Your task to perform on an android device: open app "VLC for Android" (install if not already installed) Image 0: 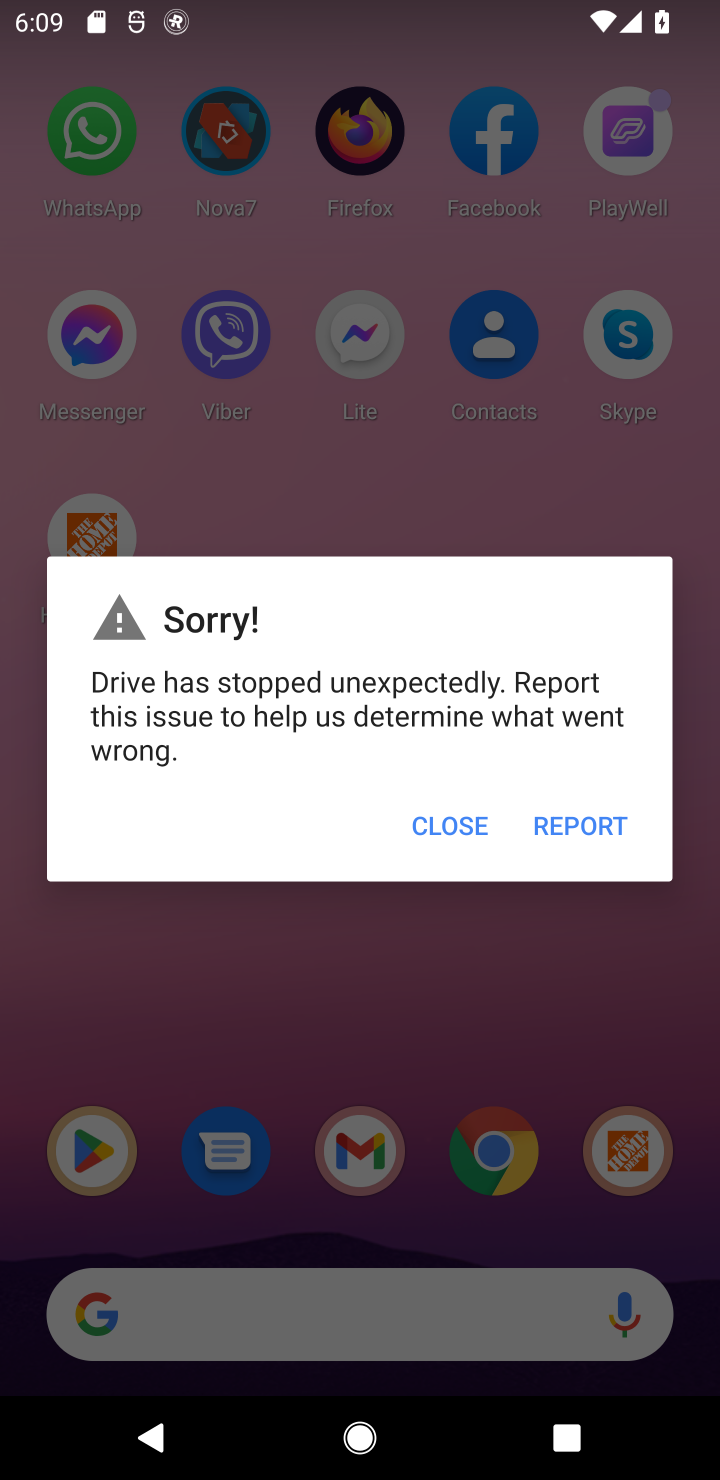
Step 0: press home button
Your task to perform on an android device: open app "VLC for Android" (install if not already installed) Image 1: 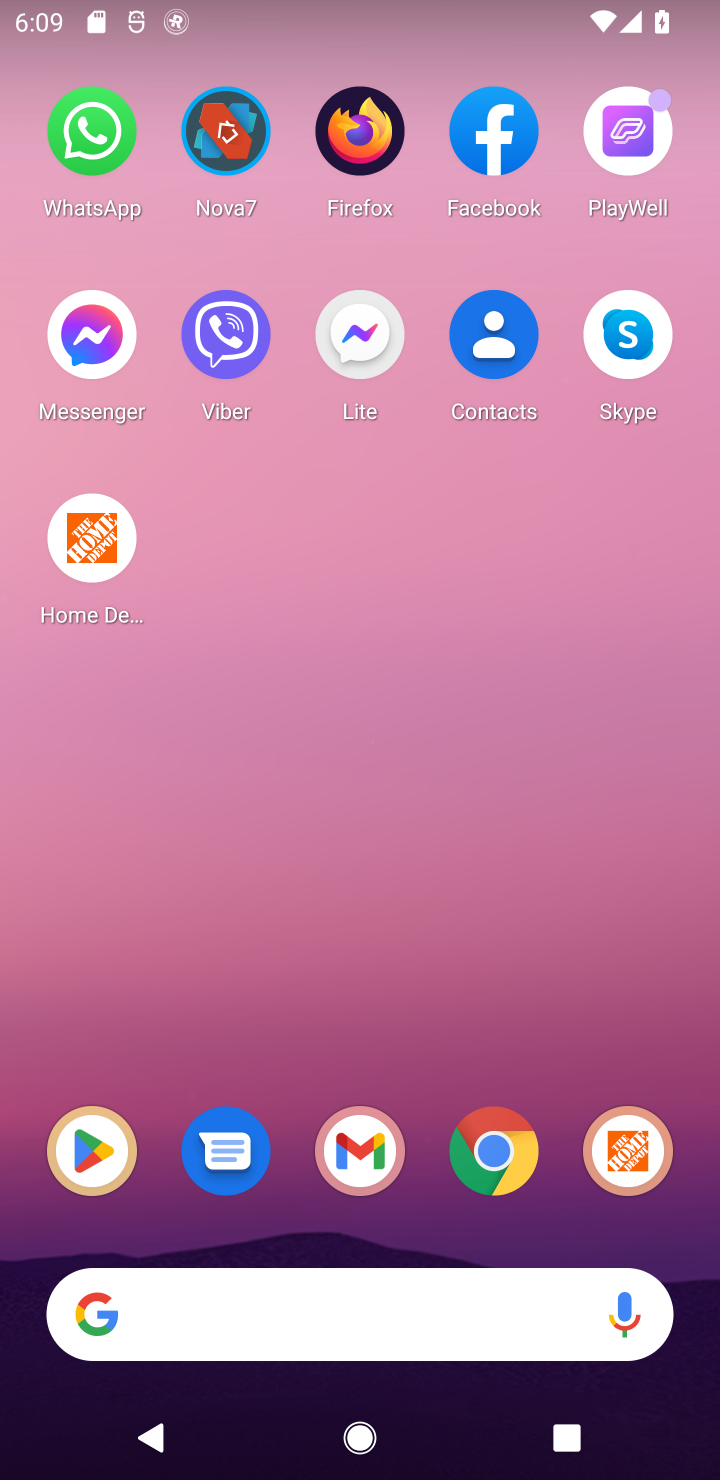
Step 1: click (121, 1152)
Your task to perform on an android device: open app "VLC for Android" (install if not already installed) Image 2: 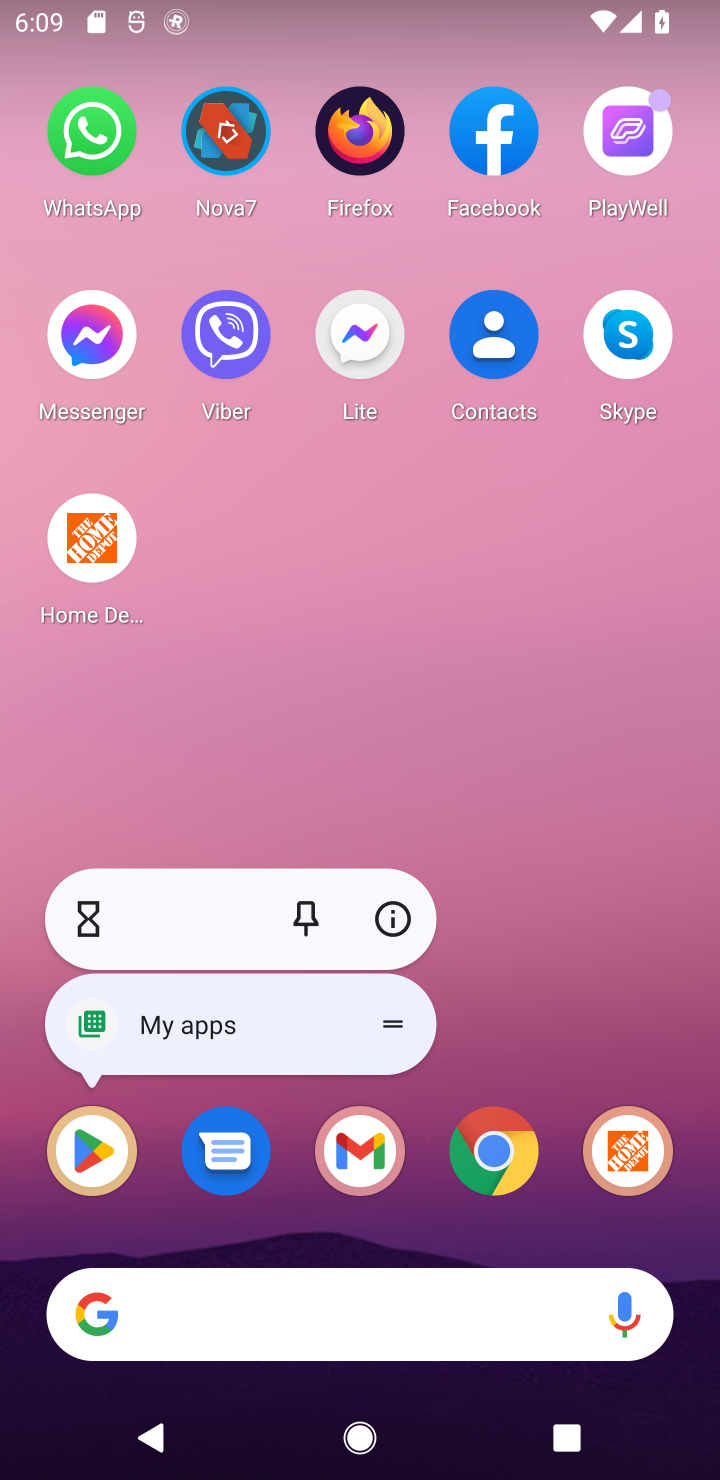
Step 2: click (86, 1167)
Your task to perform on an android device: open app "VLC for Android" (install if not already installed) Image 3: 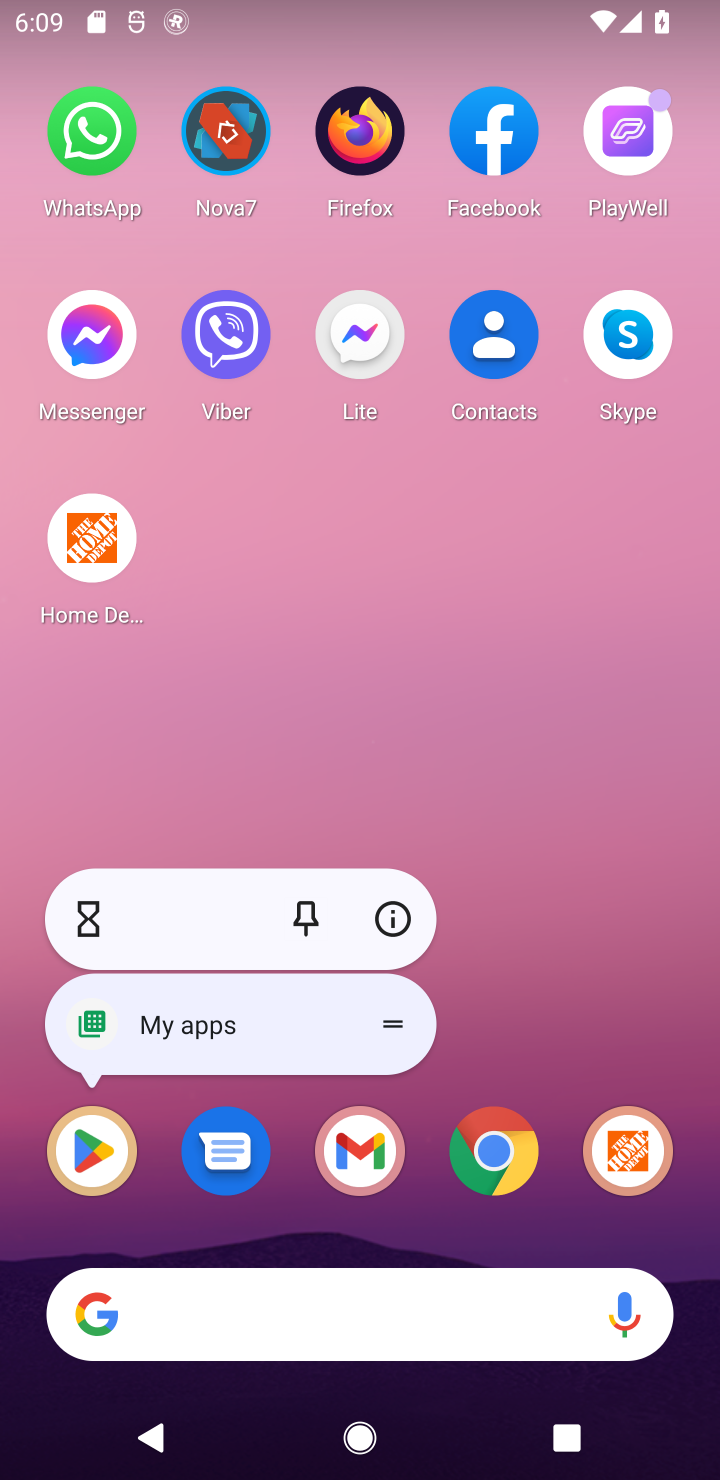
Step 3: click (86, 1167)
Your task to perform on an android device: open app "VLC for Android" (install if not already installed) Image 4: 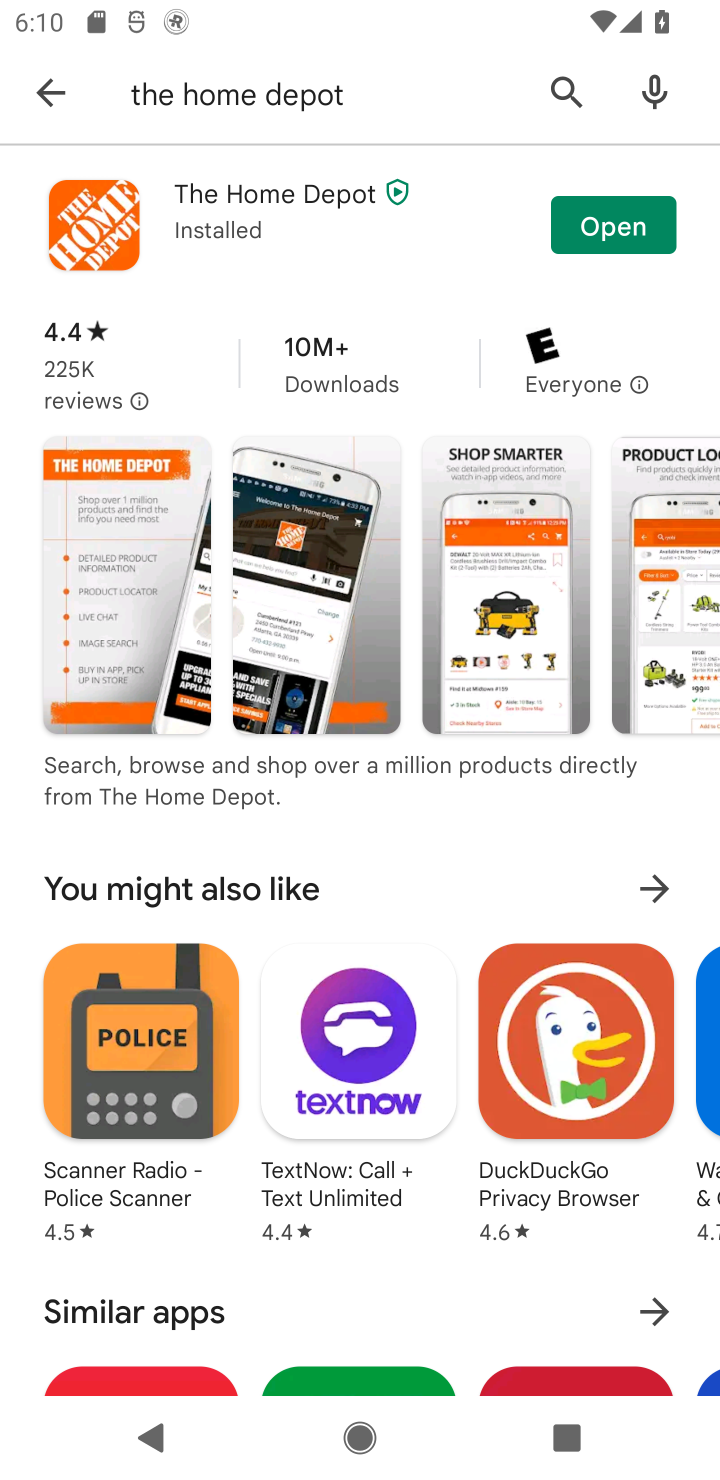
Step 4: click (548, 95)
Your task to perform on an android device: open app "VLC for Android" (install if not already installed) Image 5: 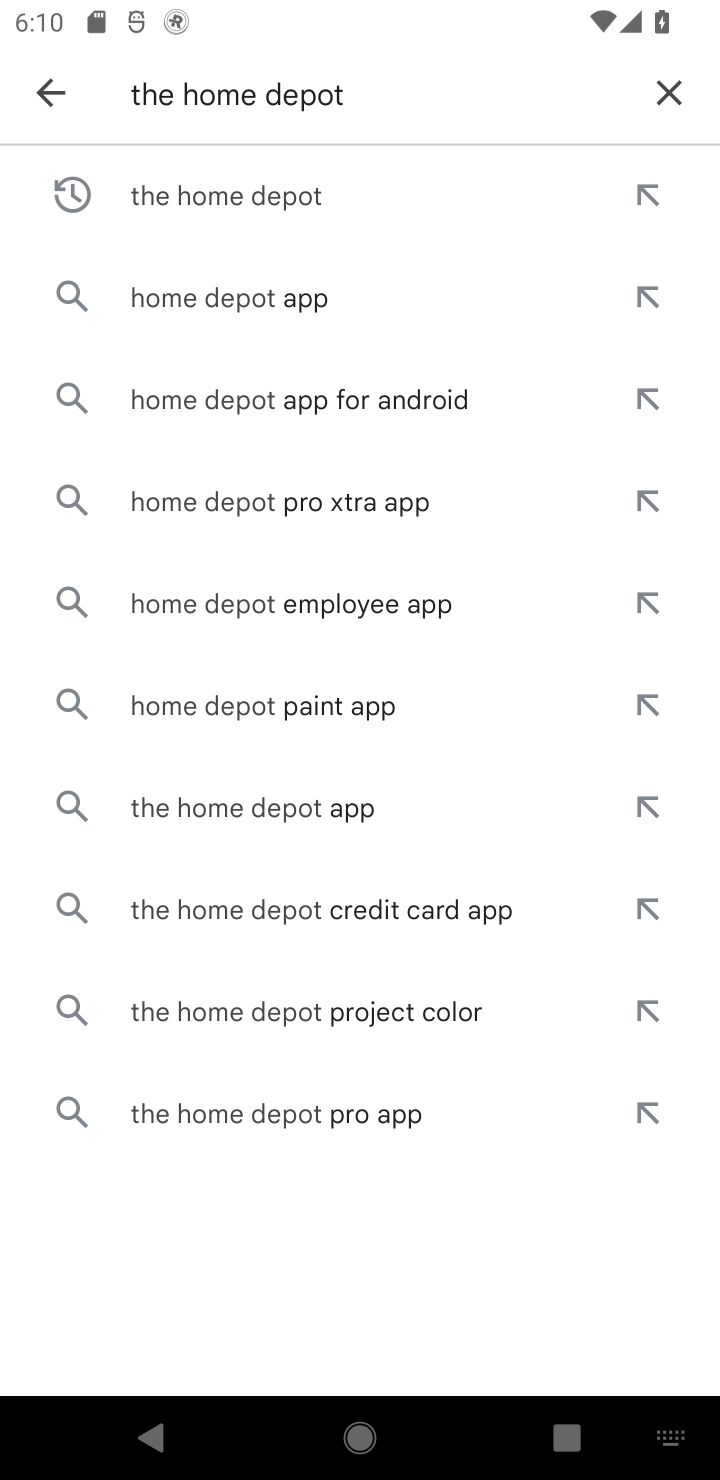
Step 5: click (656, 97)
Your task to perform on an android device: open app "VLC for Android" (install if not already installed) Image 6: 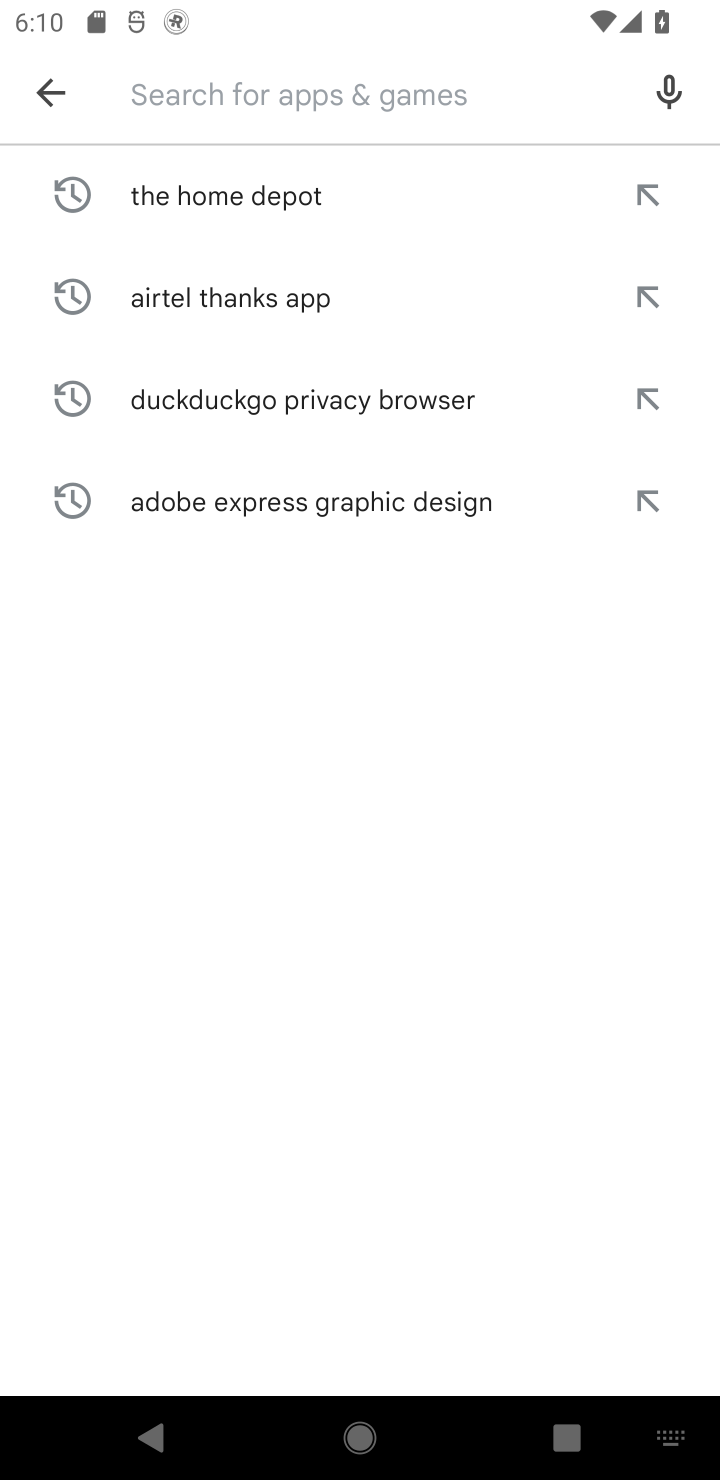
Step 6: type "VLC for Android"
Your task to perform on an android device: open app "VLC for Android" (install if not already installed) Image 7: 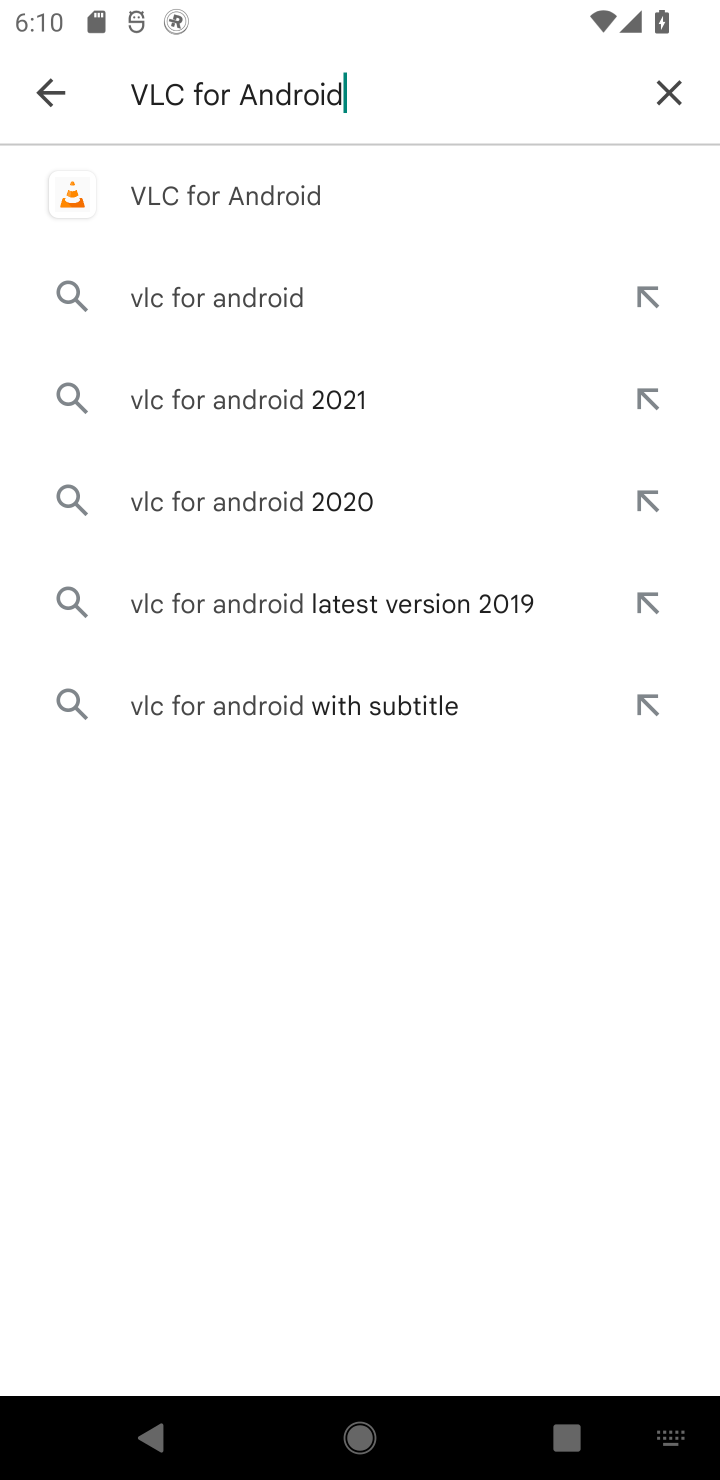
Step 7: click (227, 207)
Your task to perform on an android device: open app "VLC for Android" (install if not already installed) Image 8: 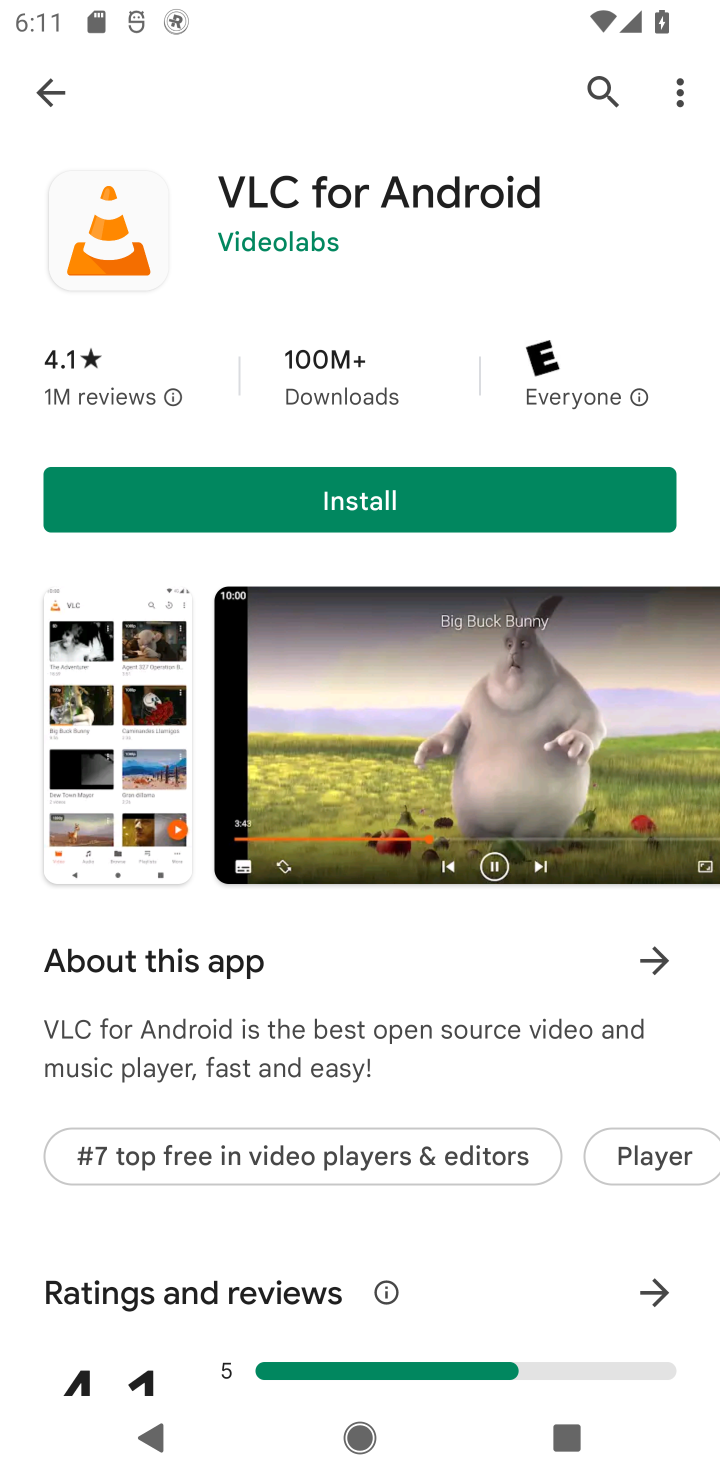
Step 8: click (354, 508)
Your task to perform on an android device: open app "VLC for Android" (install if not already installed) Image 9: 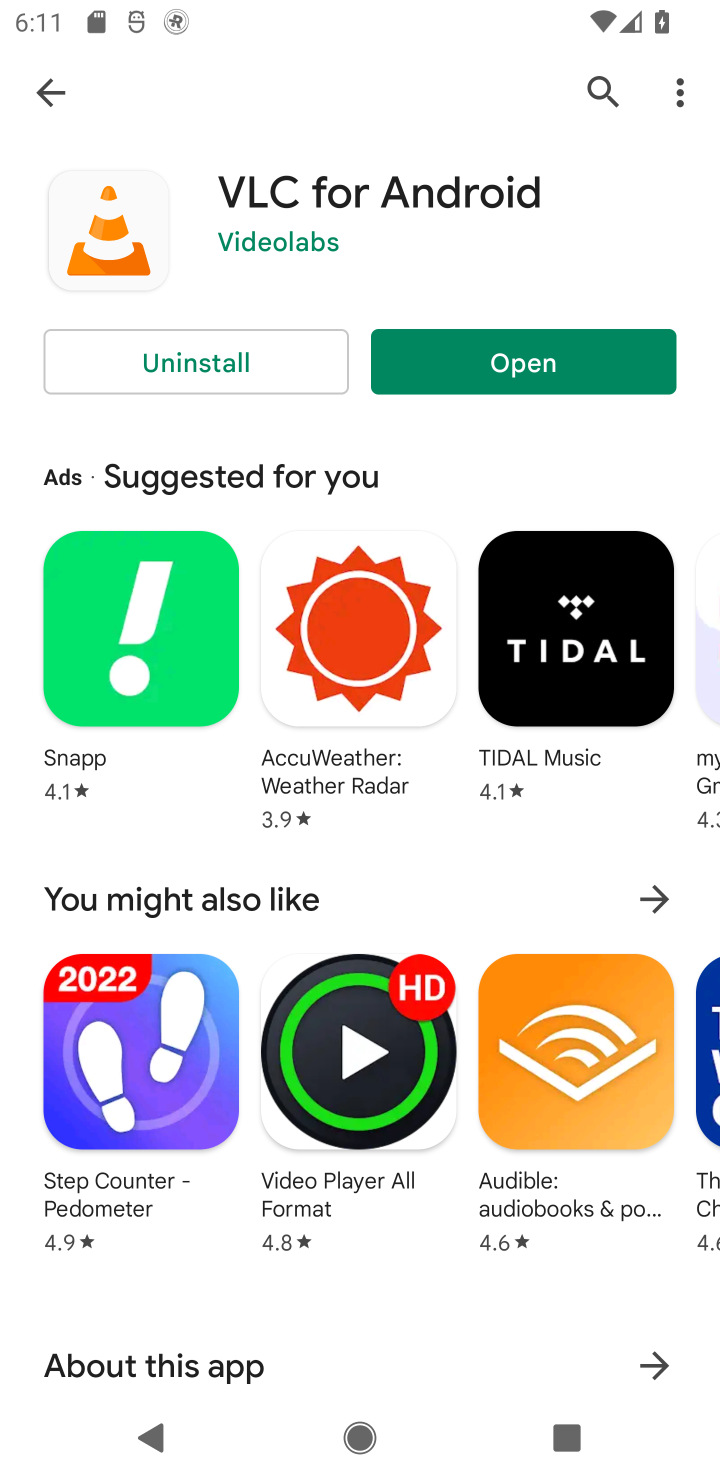
Step 9: click (454, 375)
Your task to perform on an android device: open app "VLC for Android" (install if not already installed) Image 10: 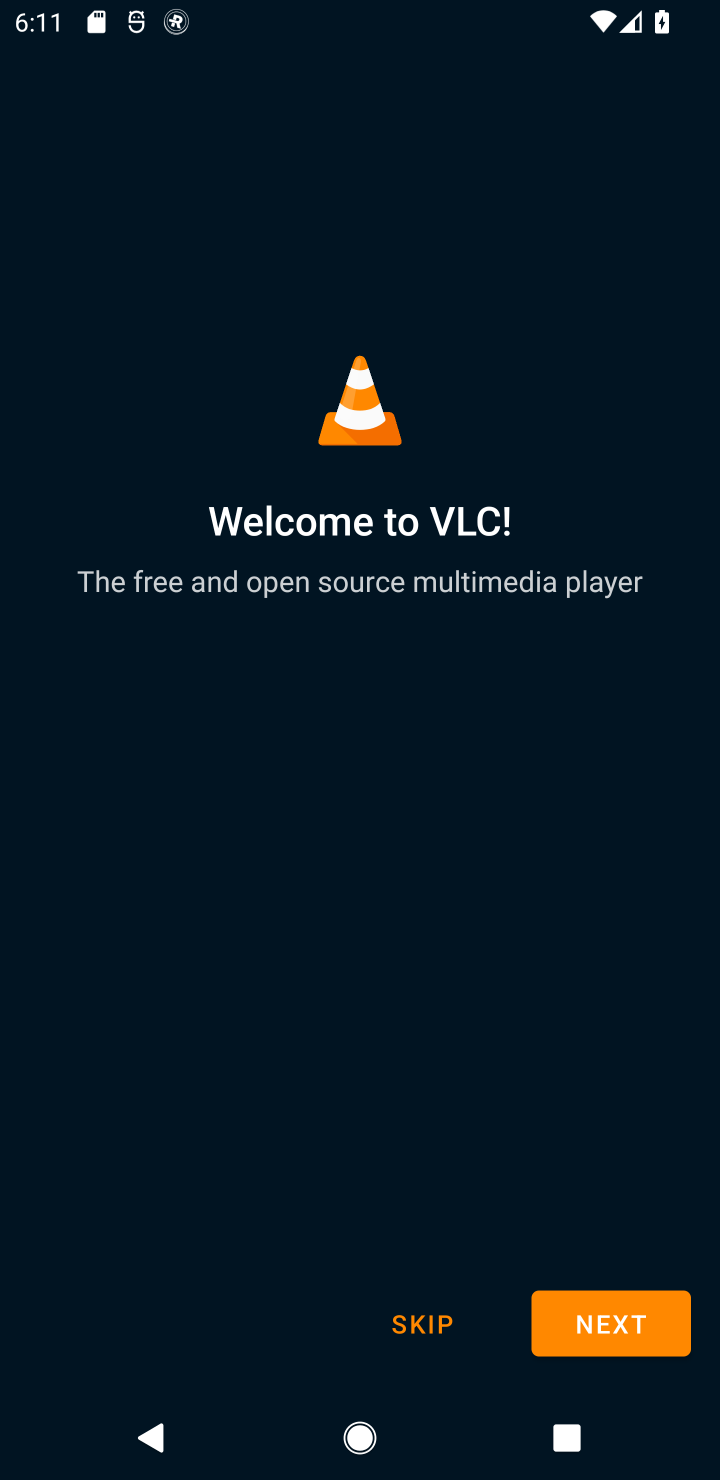
Step 10: task complete